Your task to perform on an android device: turn off priority inbox in the gmail app Image 0: 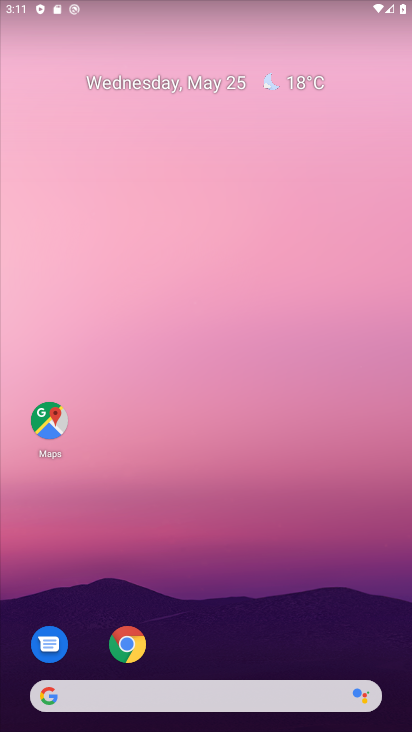
Step 0: drag from (263, 591) to (194, 131)
Your task to perform on an android device: turn off priority inbox in the gmail app Image 1: 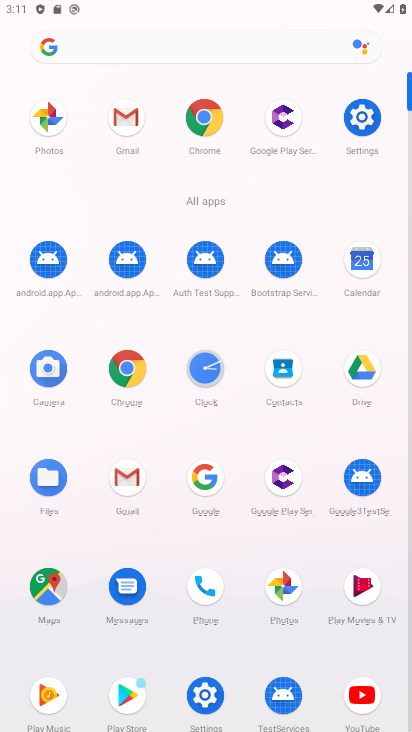
Step 1: click (126, 114)
Your task to perform on an android device: turn off priority inbox in the gmail app Image 2: 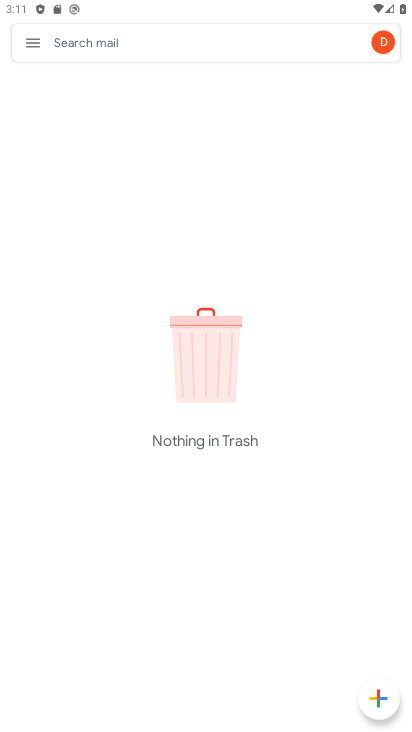
Step 2: click (34, 42)
Your task to perform on an android device: turn off priority inbox in the gmail app Image 3: 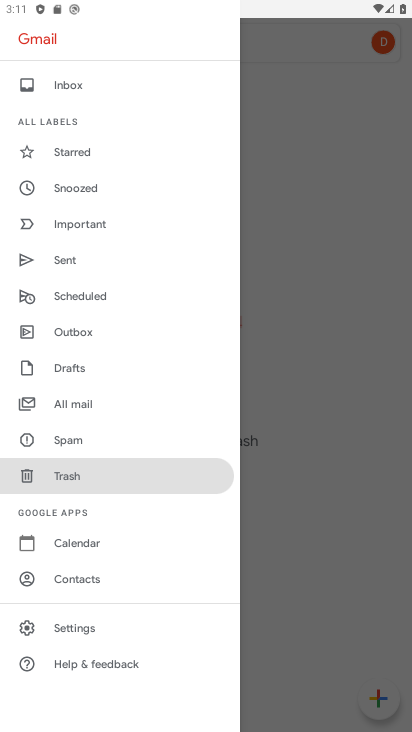
Step 3: click (70, 625)
Your task to perform on an android device: turn off priority inbox in the gmail app Image 4: 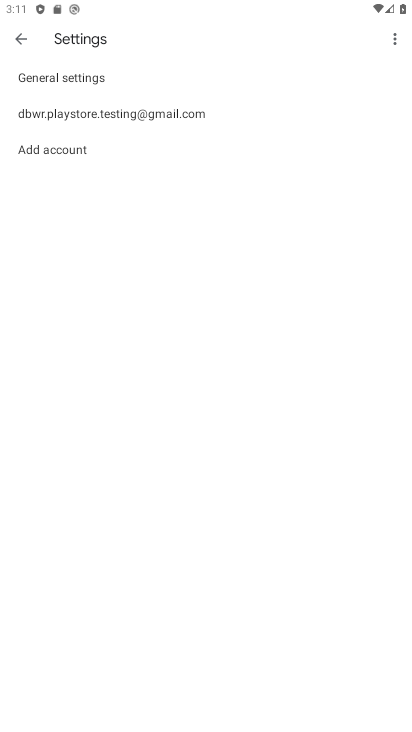
Step 4: click (103, 114)
Your task to perform on an android device: turn off priority inbox in the gmail app Image 5: 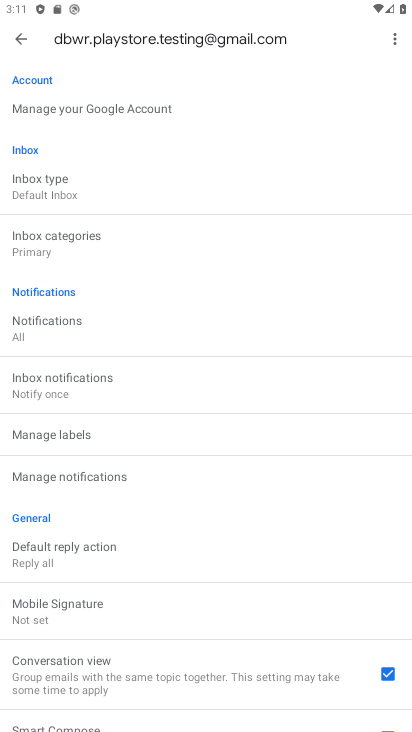
Step 5: click (56, 190)
Your task to perform on an android device: turn off priority inbox in the gmail app Image 6: 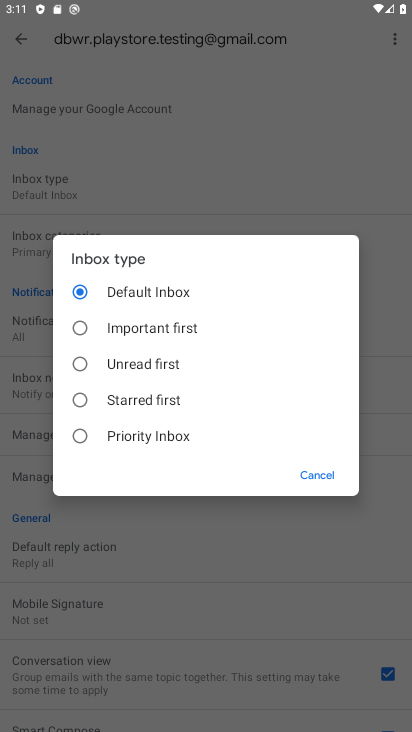
Step 6: click (80, 294)
Your task to perform on an android device: turn off priority inbox in the gmail app Image 7: 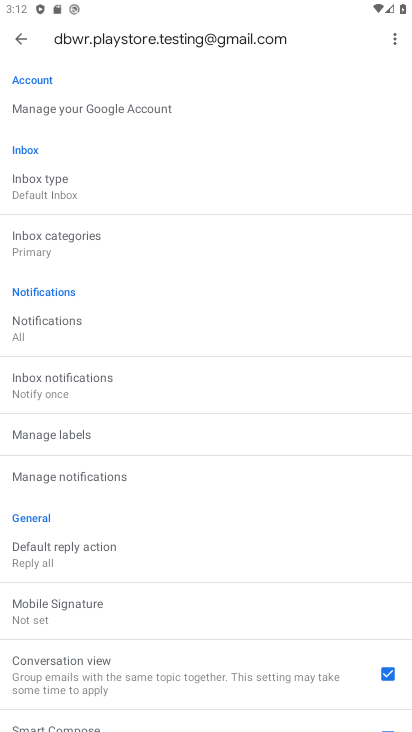
Step 7: task complete